Your task to perform on an android device: check out phone information Image 0: 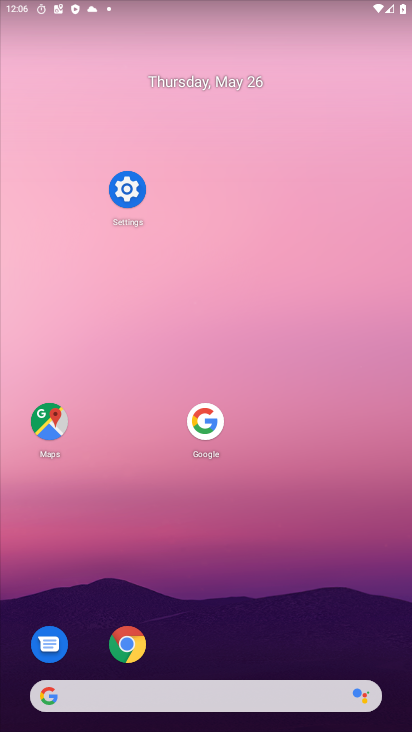
Step 0: drag from (241, 580) to (252, 100)
Your task to perform on an android device: check out phone information Image 1: 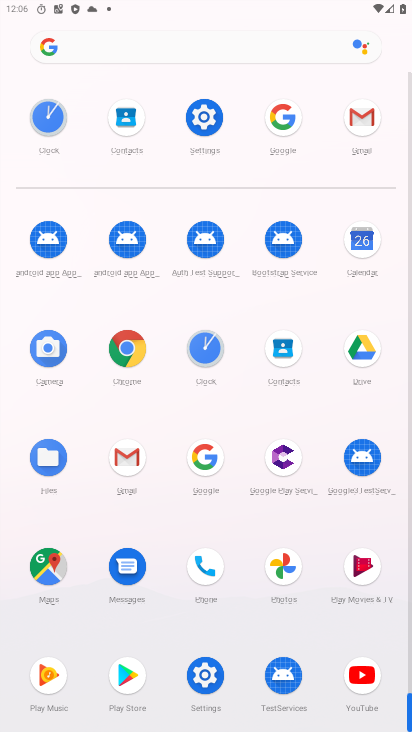
Step 1: click (202, 109)
Your task to perform on an android device: check out phone information Image 2: 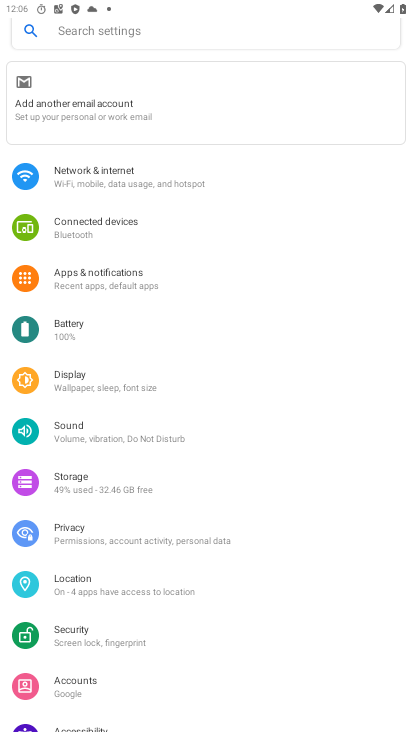
Step 2: task complete